Your task to perform on an android device: toggle pop-ups in chrome Image 0: 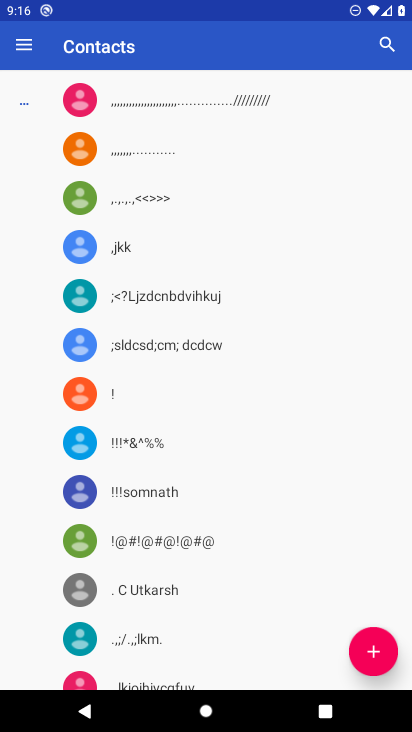
Step 0: press home button
Your task to perform on an android device: toggle pop-ups in chrome Image 1: 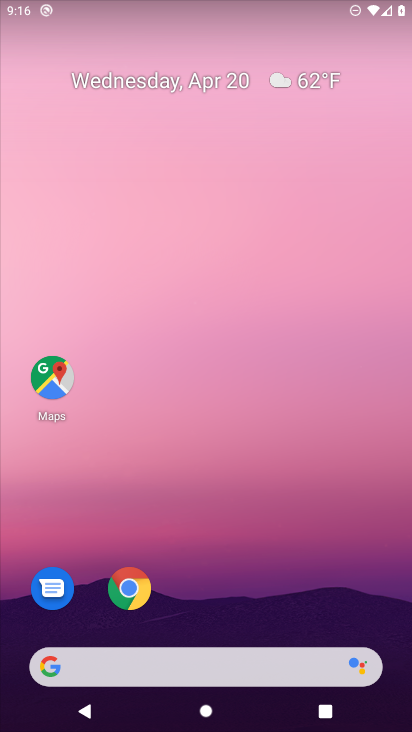
Step 1: click (126, 579)
Your task to perform on an android device: toggle pop-ups in chrome Image 2: 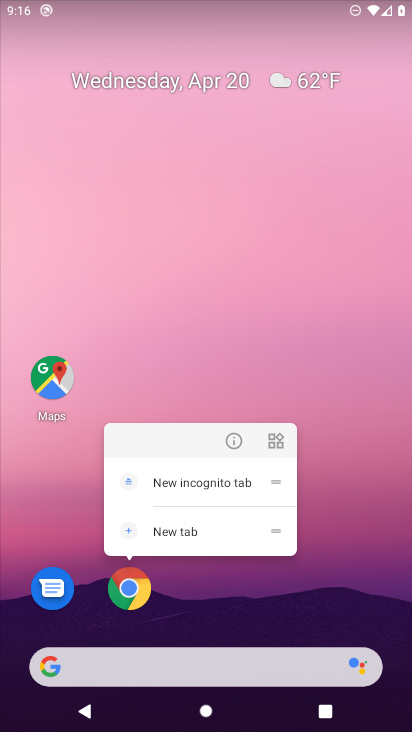
Step 2: click (128, 583)
Your task to perform on an android device: toggle pop-ups in chrome Image 3: 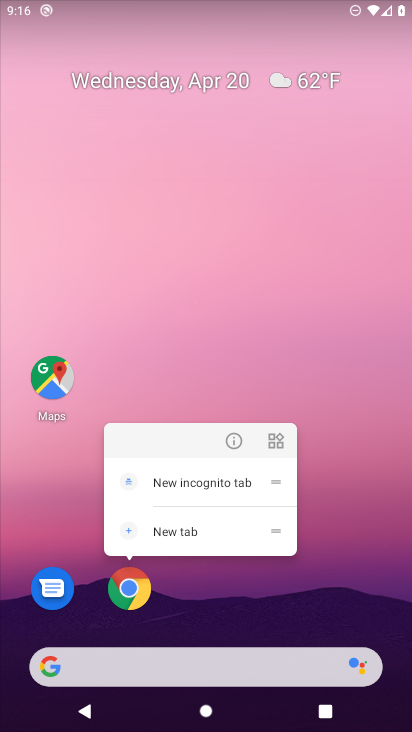
Step 3: click (126, 581)
Your task to perform on an android device: toggle pop-ups in chrome Image 4: 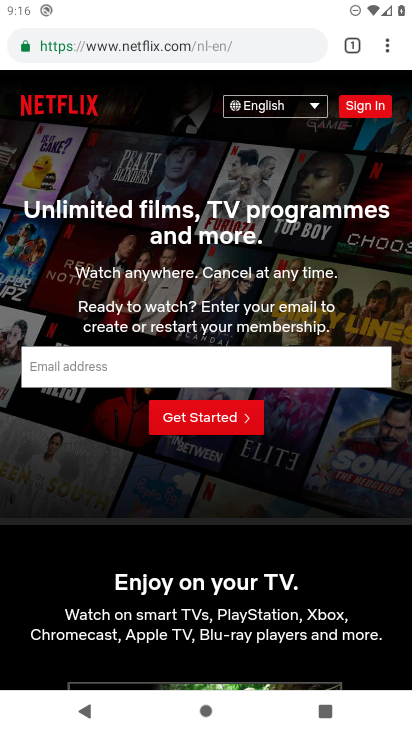
Step 4: click (384, 45)
Your task to perform on an android device: toggle pop-ups in chrome Image 5: 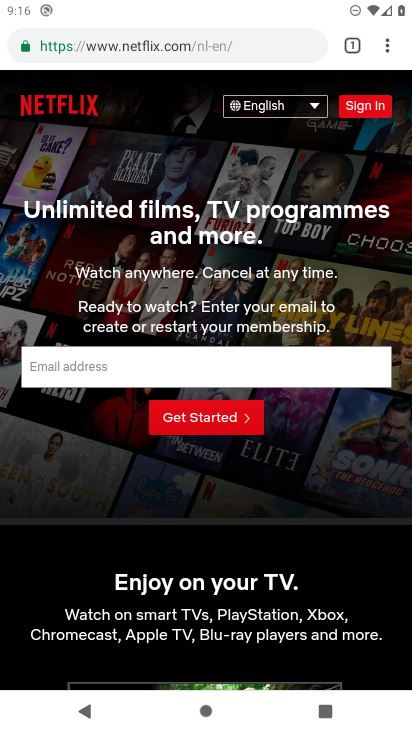
Step 5: click (387, 40)
Your task to perform on an android device: toggle pop-ups in chrome Image 6: 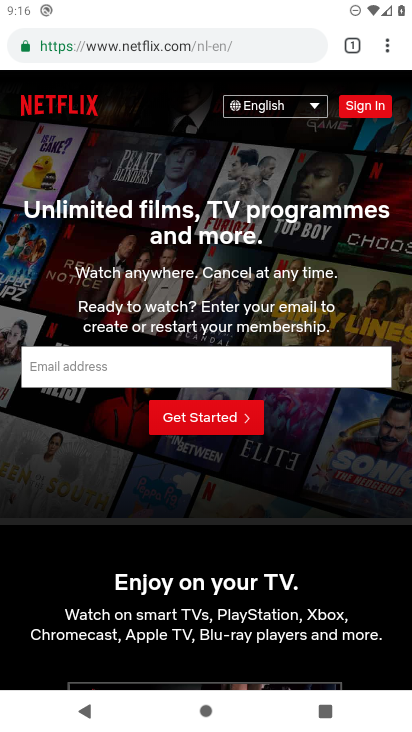
Step 6: click (387, 47)
Your task to perform on an android device: toggle pop-ups in chrome Image 7: 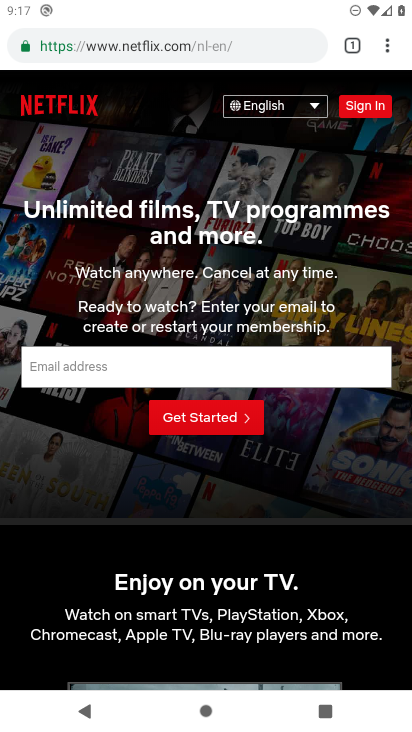
Step 7: click (385, 40)
Your task to perform on an android device: toggle pop-ups in chrome Image 8: 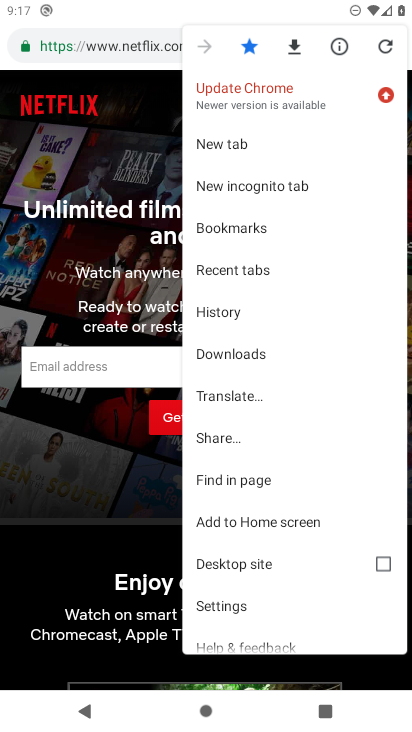
Step 8: click (254, 607)
Your task to perform on an android device: toggle pop-ups in chrome Image 9: 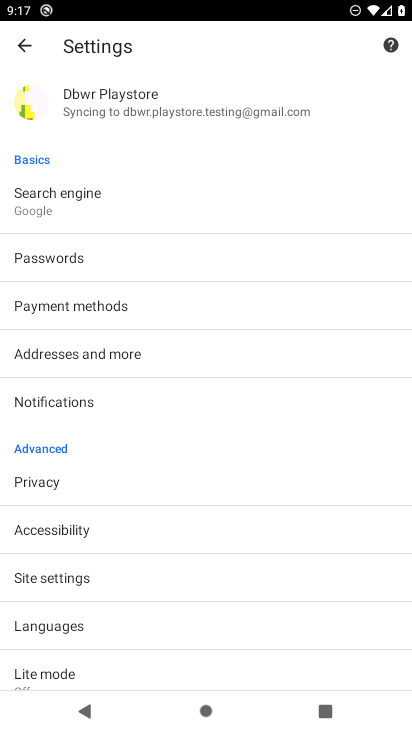
Step 9: click (99, 580)
Your task to perform on an android device: toggle pop-ups in chrome Image 10: 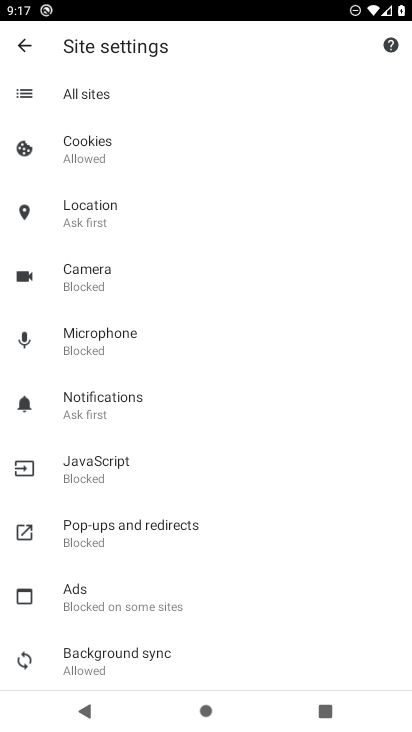
Step 10: click (136, 534)
Your task to perform on an android device: toggle pop-ups in chrome Image 11: 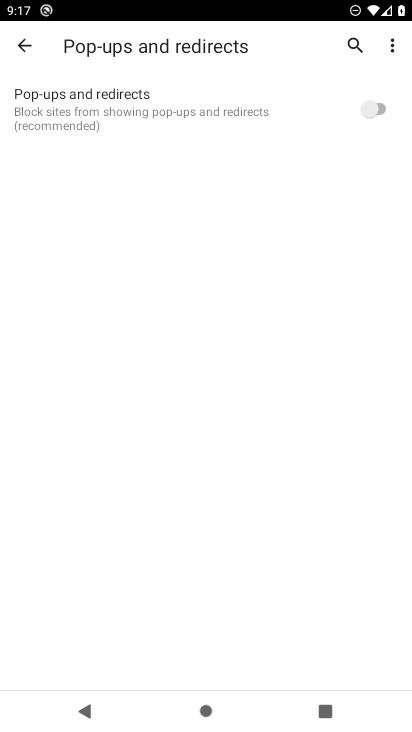
Step 11: task complete